Your task to perform on an android device: Go to eBay Image 0: 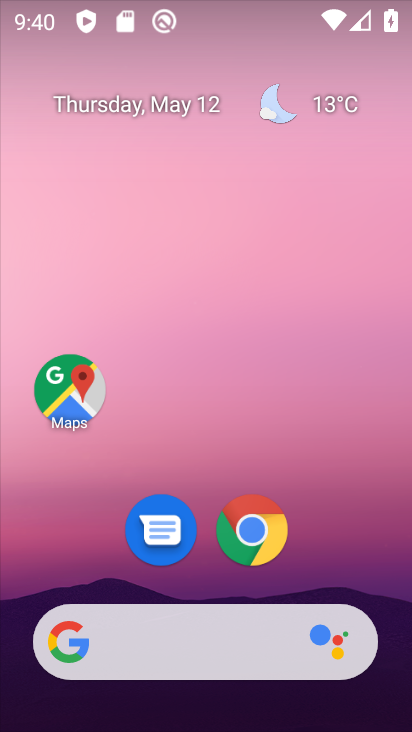
Step 0: click (251, 530)
Your task to perform on an android device: Go to eBay Image 1: 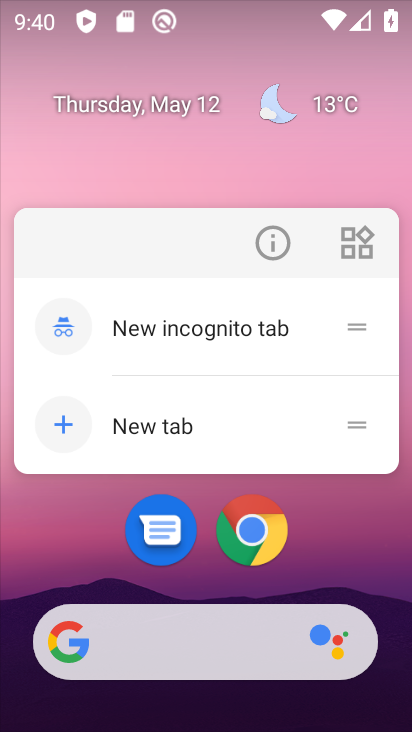
Step 1: click (255, 526)
Your task to perform on an android device: Go to eBay Image 2: 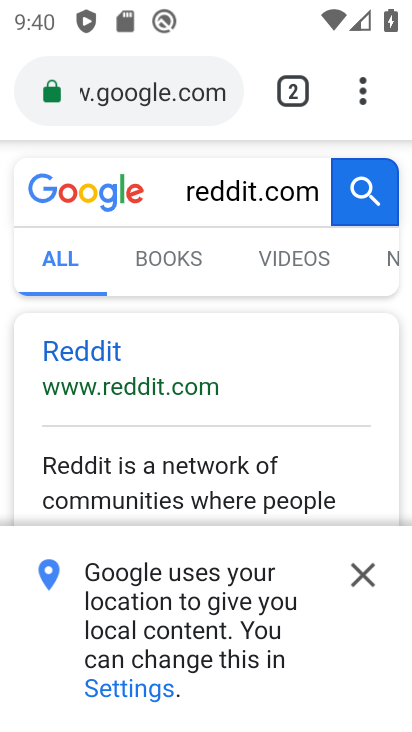
Step 2: click (286, 90)
Your task to perform on an android device: Go to eBay Image 3: 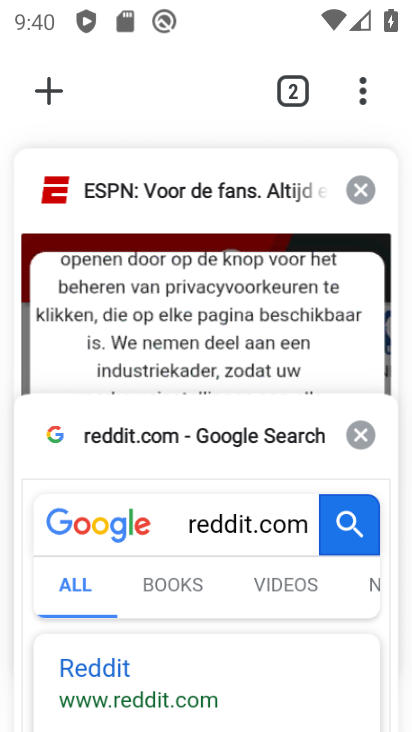
Step 3: click (49, 92)
Your task to perform on an android device: Go to eBay Image 4: 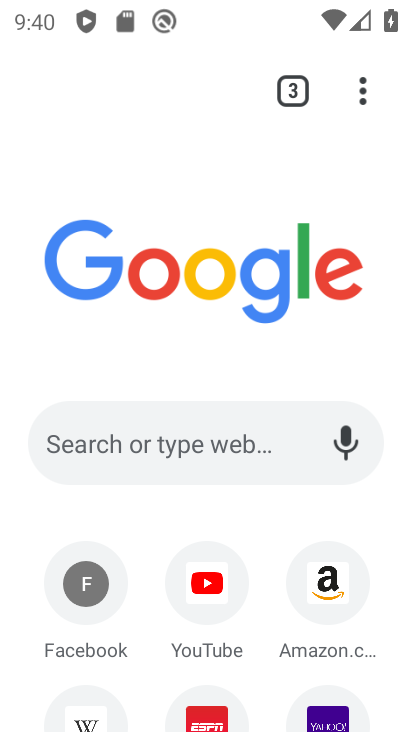
Step 4: drag from (256, 672) to (282, 377)
Your task to perform on an android device: Go to eBay Image 5: 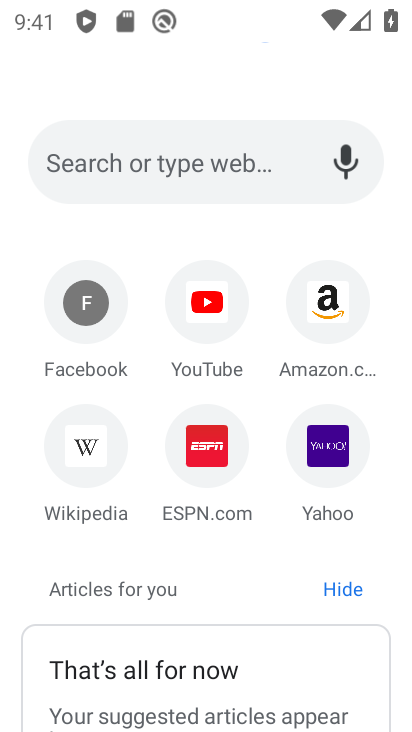
Step 5: click (179, 142)
Your task to perform on an android device: Go to eBay Image 6: 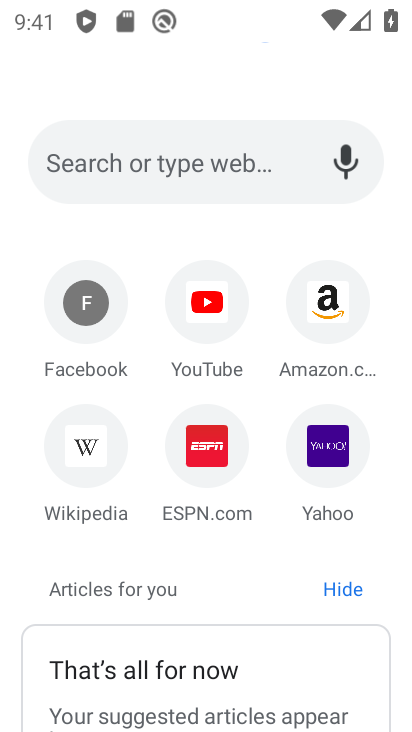
Step 6: click (141, 175)
Your task to perform on an android device: Go to eBay Image 7: 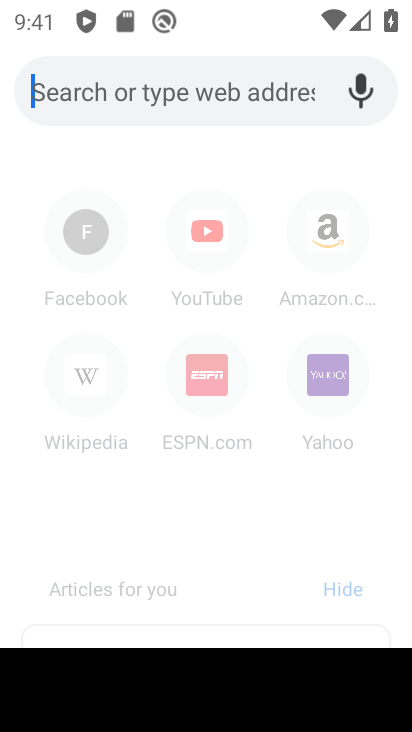
Step 7: type "ebay"
Your task to perform on an android device: Go to eBay Image 8: 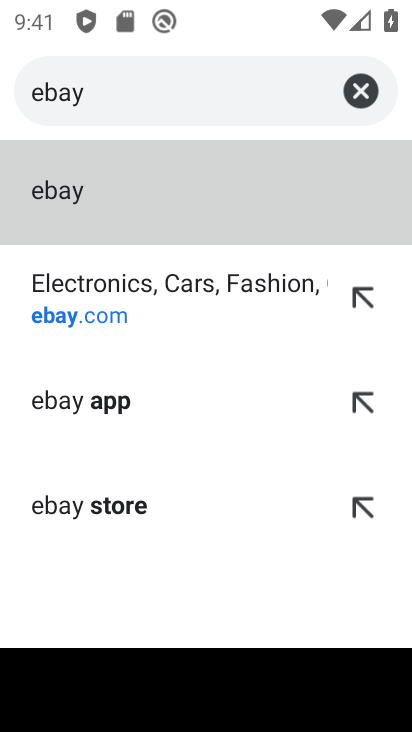
Step 8: click (130, 315)
Your task to perform on an android device: Go to eBay Image 9: 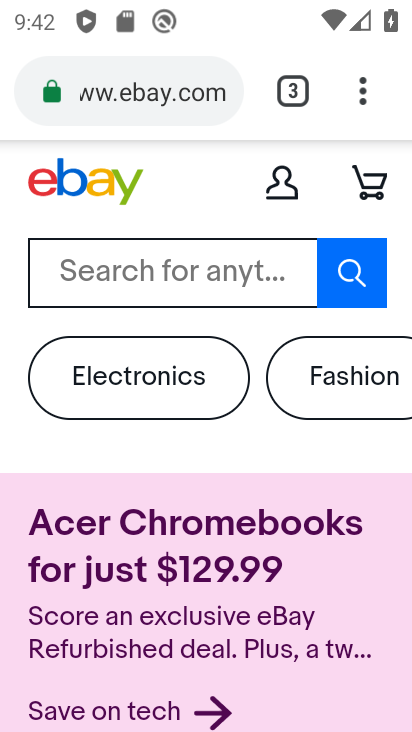
Step 9: task complete